Your task to perform on an android device: turn on javascript in the chrome app Image 0: 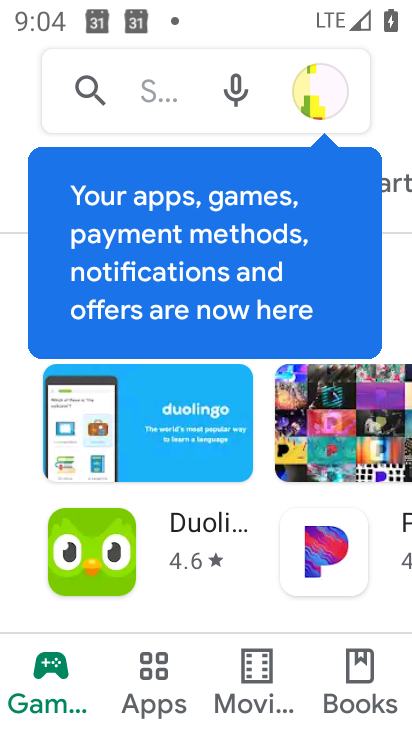
Step 0: press home button
Your task to perform on an android device: turn on javascript in the chrome app Image 1: 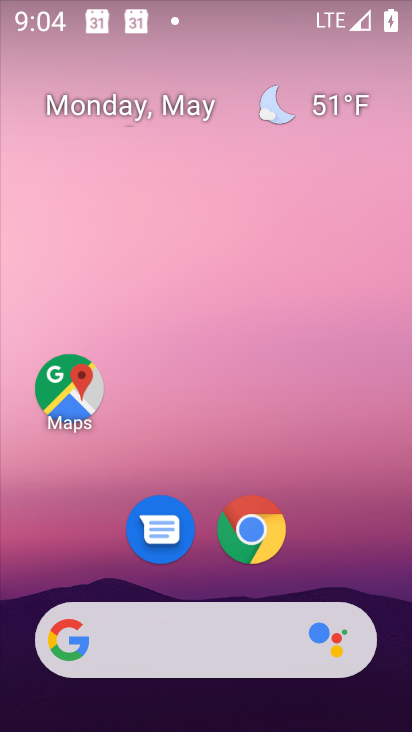
Step 1: click (246, 552)
Your task to perform on an android device: turn on javascript in the chrome app Image 2: 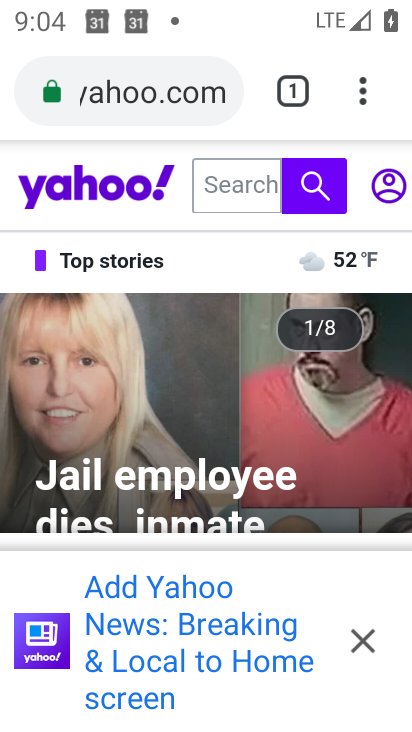
Step 2: click (359, 86)
Your task to perform on an android device: turn on javascript in the chrome app Image 3: 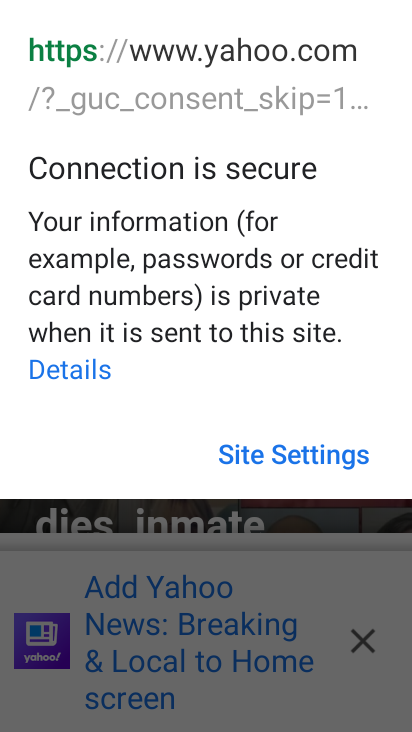
Step 3: press back button
Your task to perform on an android device: turn on javascript in the chrome app Image 4: 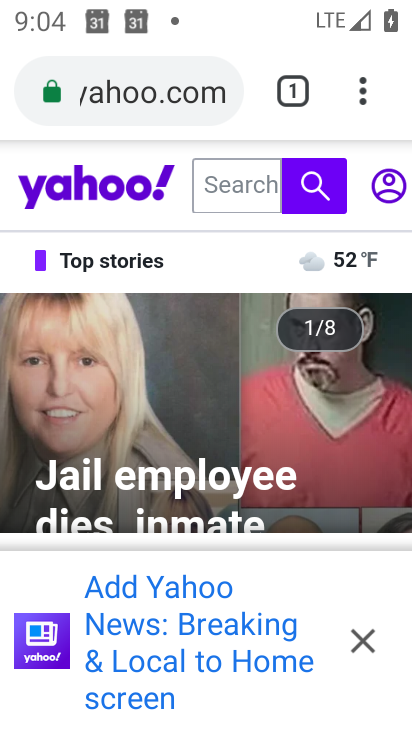
Step 4: click (358, 94)
Your task to perform on an android device: turn on javascript in the chrome app Image 5: 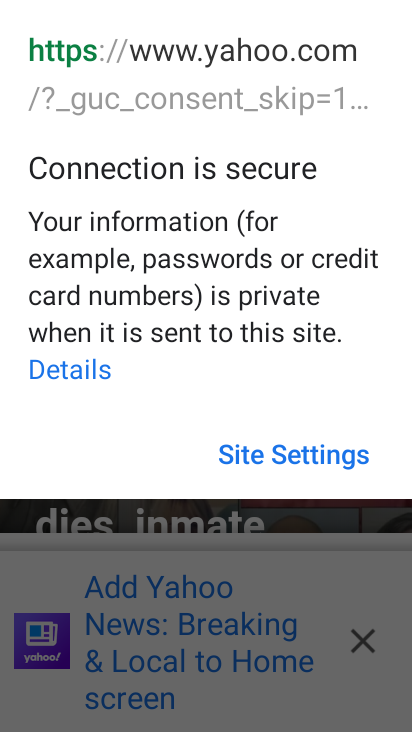
Step 5: press back button
Your task to perform on an android device: turn on javascript in the chrome app Image 6: 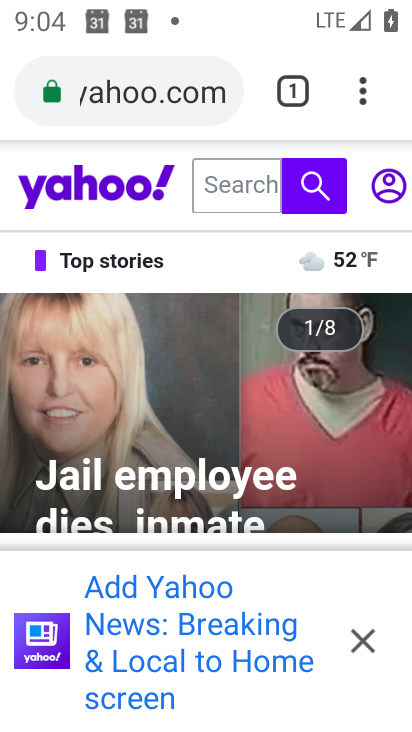
Step 6: click (357, 92)
Your task to perform on an android device: turn on javascript in the chrome app Image 7: 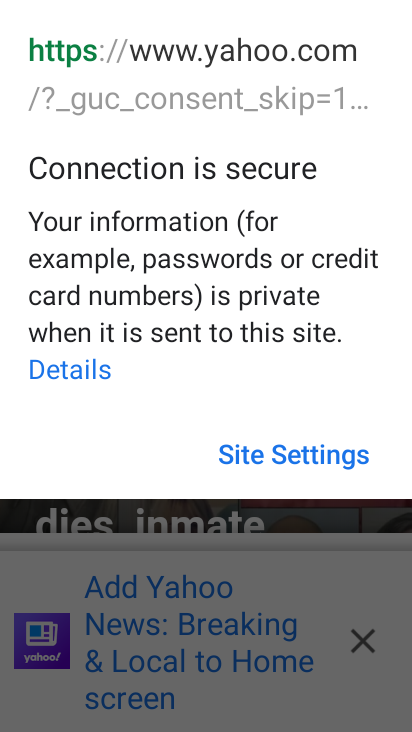
Step 7: press back button
Your task to perform on an android device: turn on javascript in the chrome app Image 8: 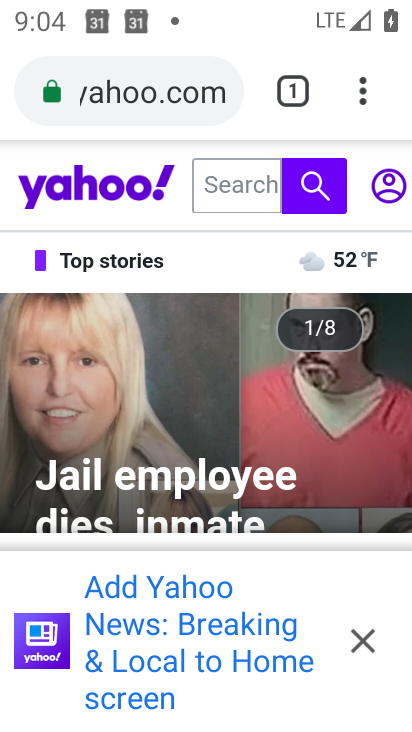
Step 8: click (364, 85)
Your task to perform on an android device: turn on javascript in the chrome app Image 9: 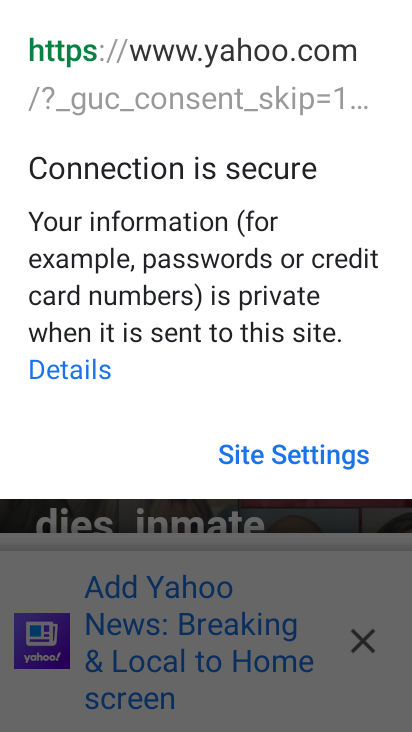
Step 9: press back button
Your task to perform on an android device: turn on javascript in the chrome app Image 10: 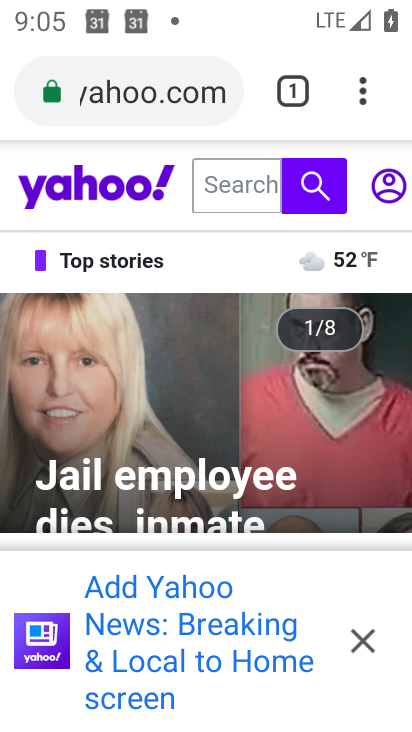
Step 10: click (364, 93)
Your task to perform on an android device: turn on javascript in the chrome app Image 11: 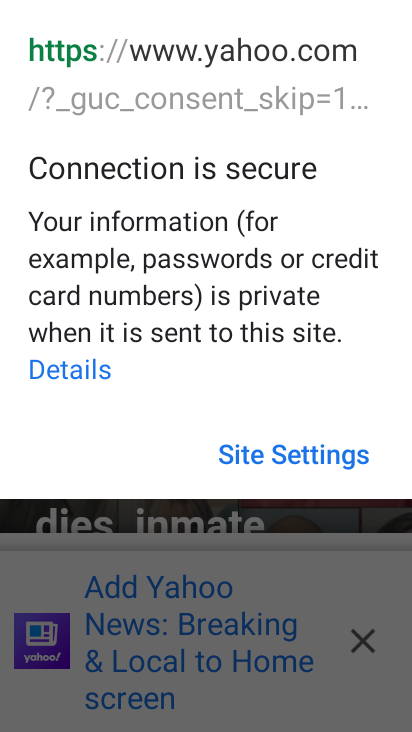
Step 11: press back button
Your task to perform on an android device: turn on javascript in the chrome app Image 12: 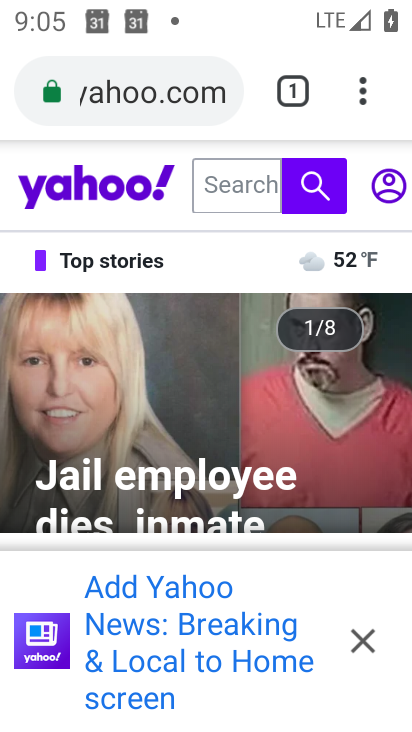
Step 12: click (358, 647)
Your task to perform on an android device: turn on javascript in the chrome app Image 13: 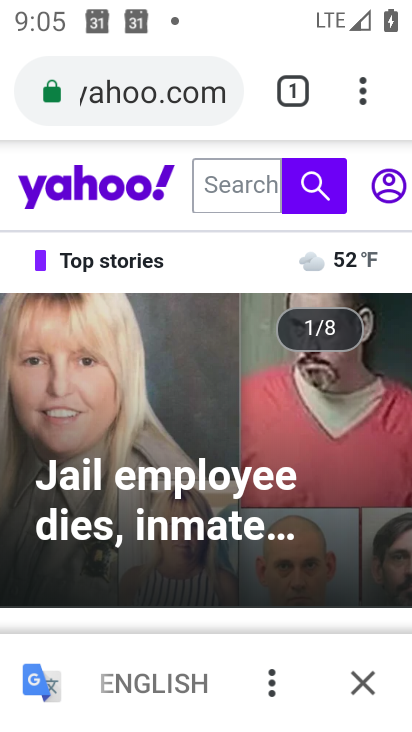
Step 13: click (356, 92)
Your task to perform on an android device: turn on javascript in the chrome app Image 14: 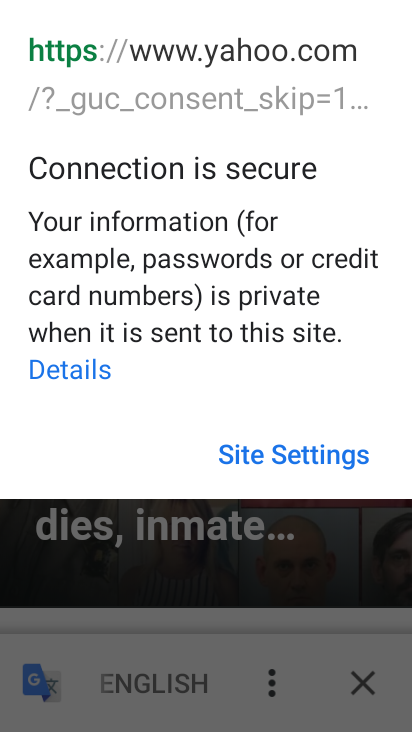
Step 14: press back button
Your task to perform on an android device: turn on javascript in the chrome app Image 15: 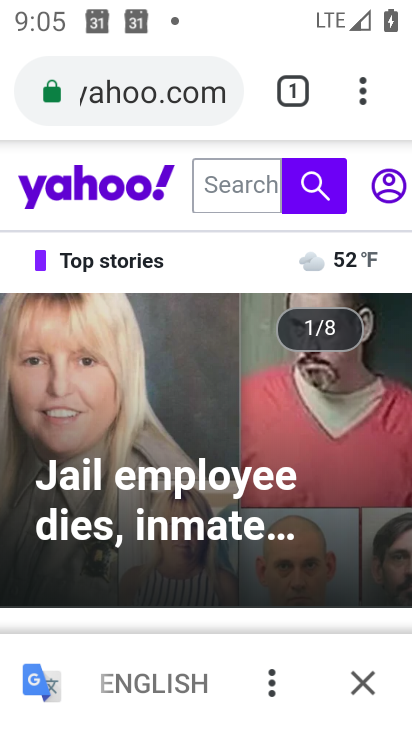
Step 15: click (362, 93)
Your task to perform on an android device: turn on javascript in the chrome app Image 16: 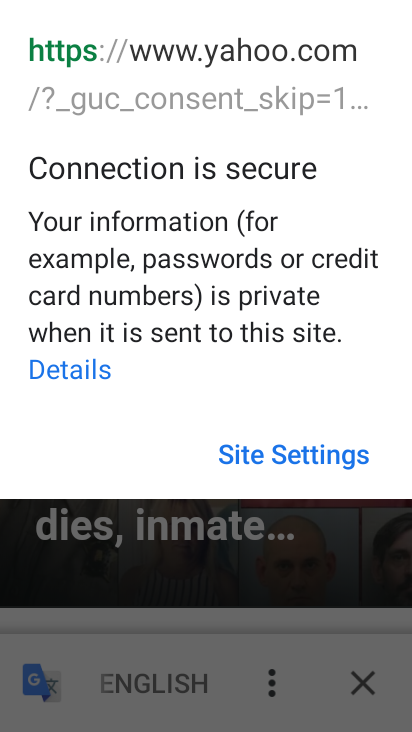
Step 16: press back button
Your task to perform on an android device: turn on javascript in the chrome app Image 17: 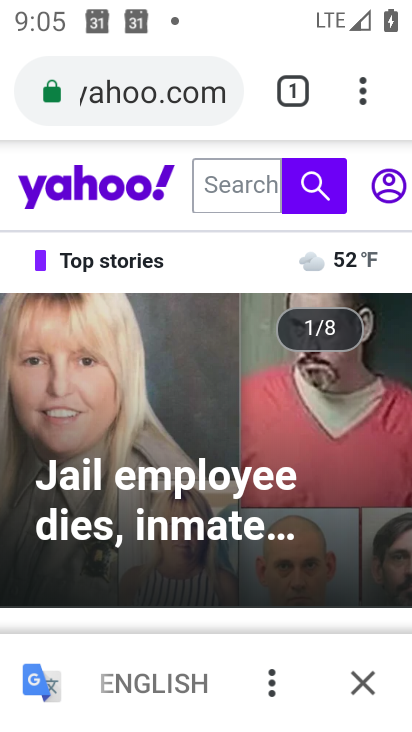
Step 17: click (357, 90)
Your task to perform on an android device: turn on javascript in the chrome app Image 18: 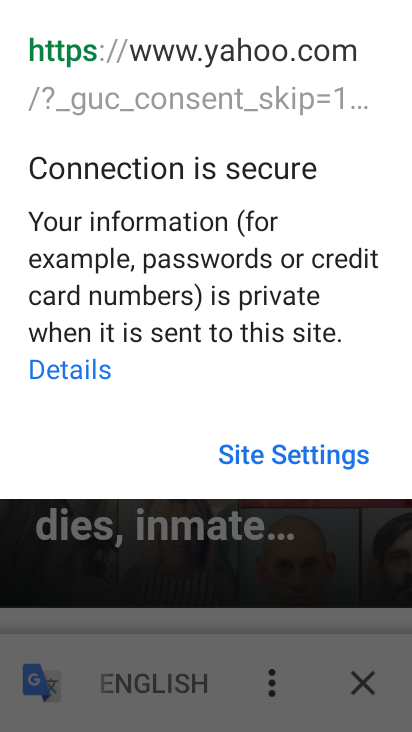
Step 18: press back button
Your task to perform on an android device: turn on javascript in the chrome app Image 19: 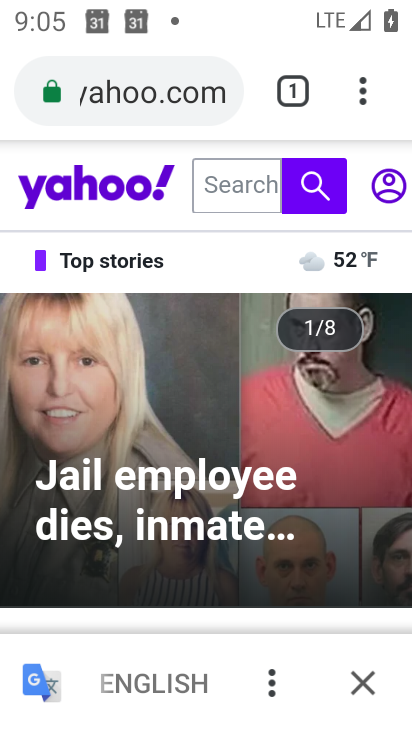
Step 19: click (360, 91)
Your task to perform on an android device: turn on javascript in the chrome app Image 20: 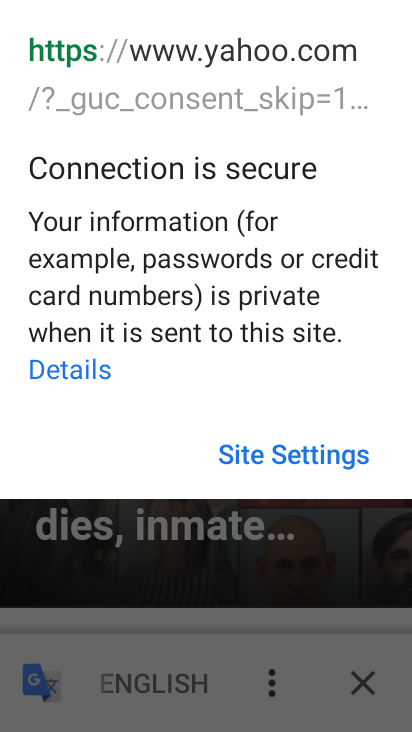
Step 20: press back button
Your task to perform on an android device: turn on javascript in the chrome app Image 21: 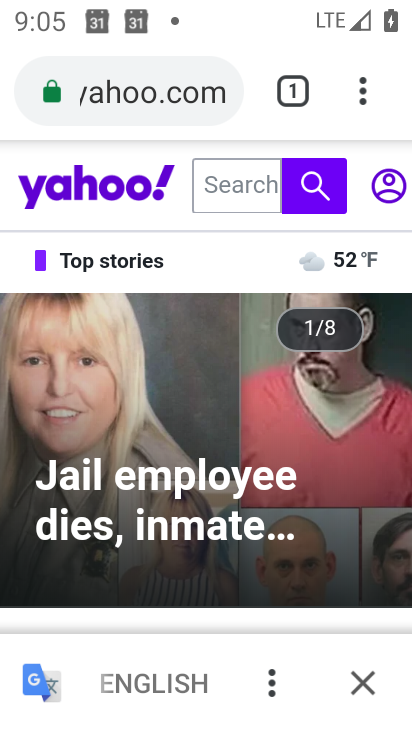
Step 21: click (360, 106)
Your task to perform on an android device: turn on javascript in the chrome app Image 22: 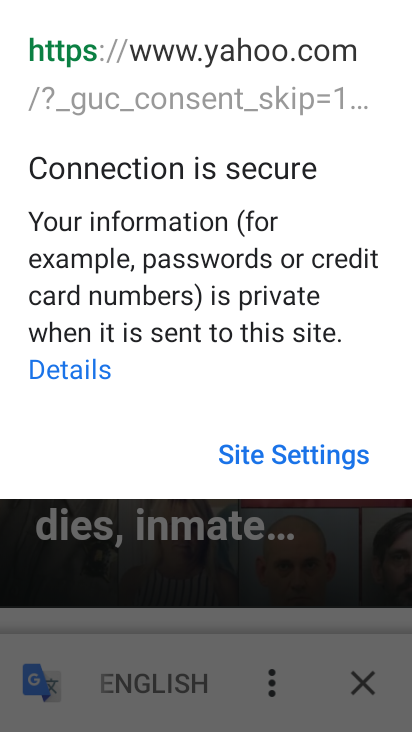
Step 22: press back button
Your task to perform on an android device: turn on javascript in the chrome app Image 23: 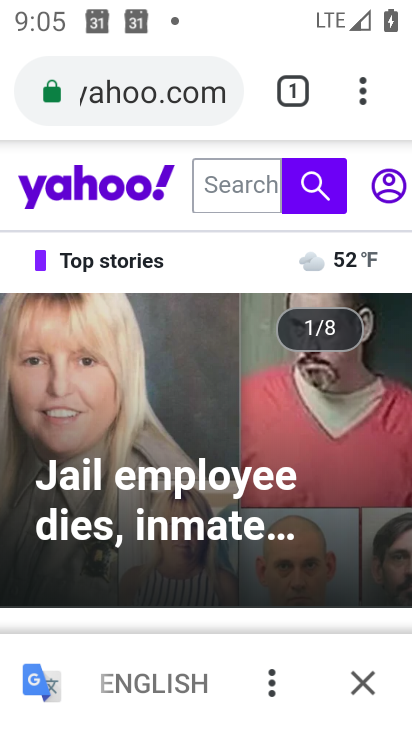
Step 23: click (355, 94)
Your task to perform on an android device: turn on javascript in the chrome app Image 24: 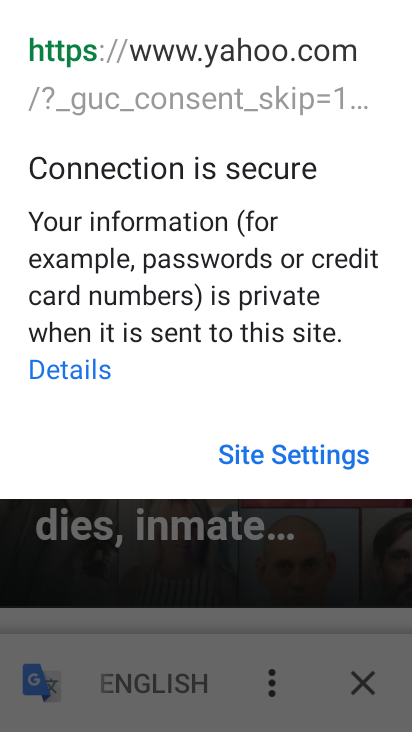
Step 24: press back button
Your task to perform on an android device: turn on javascript in the chrome app Image 25: 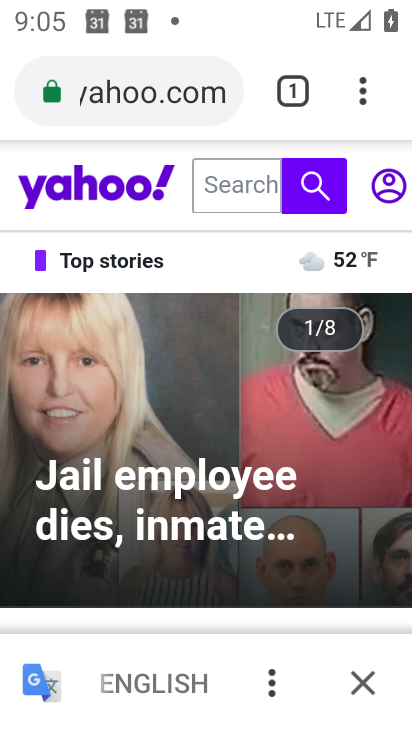
Step 25: click (364, 78)
Your task to perform on an android device: turn on javascript in the chrome app Image 26: 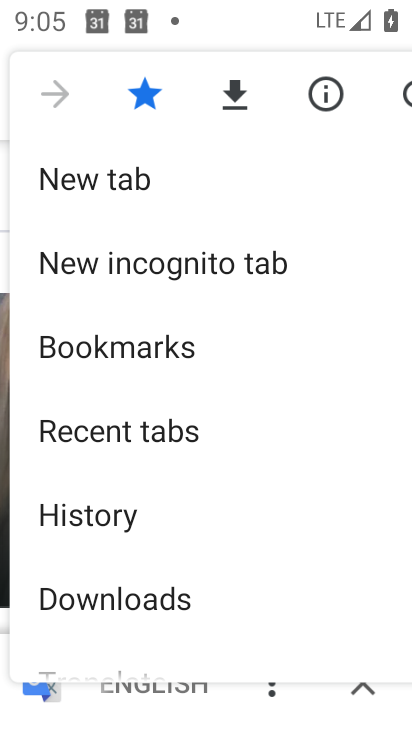
Step 26: drag from (50, 657) to (199, 193)
Your task to perform on an android device: turn on javascript in the chrome app Image 27: 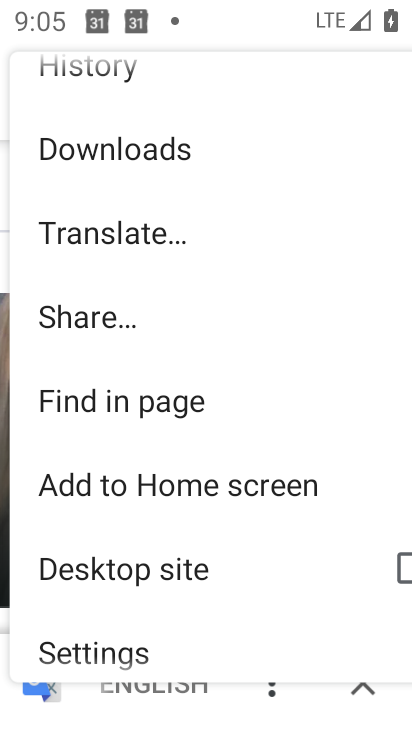
Step 27: click (125, 651)
Your task to perform on an android device: turn on javascript in the chrome app Image 28: 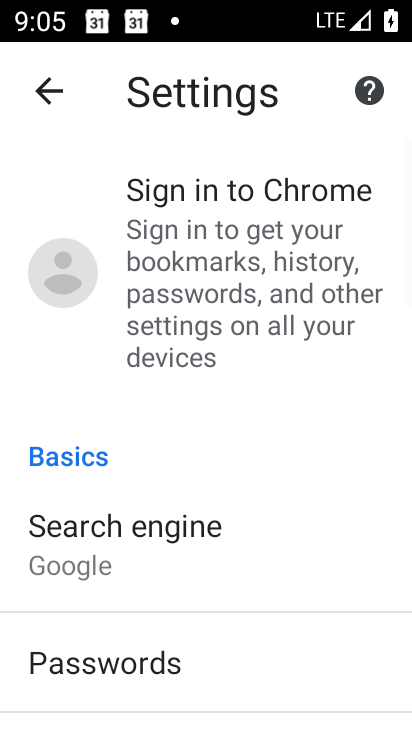
Step 28: drag from (106, 608) to (230, 242)
Your task to perform on an android device: turn on javascript in the chrome app Image 29: 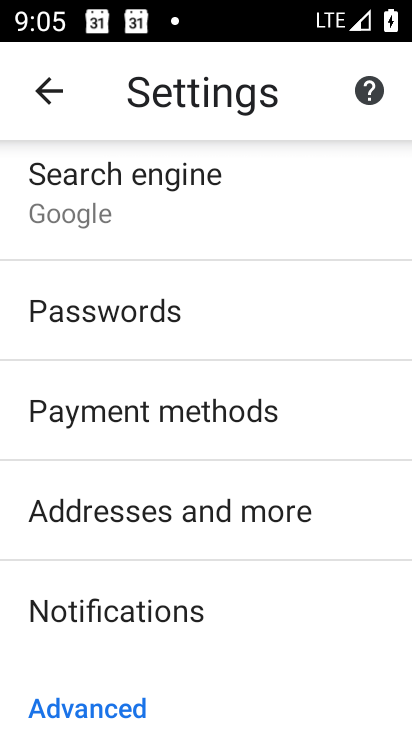
Step 29: drag from (100, 667) to (197, 306)
Your task to perform on an android device: turn on javascript in the chrome app Image 30: 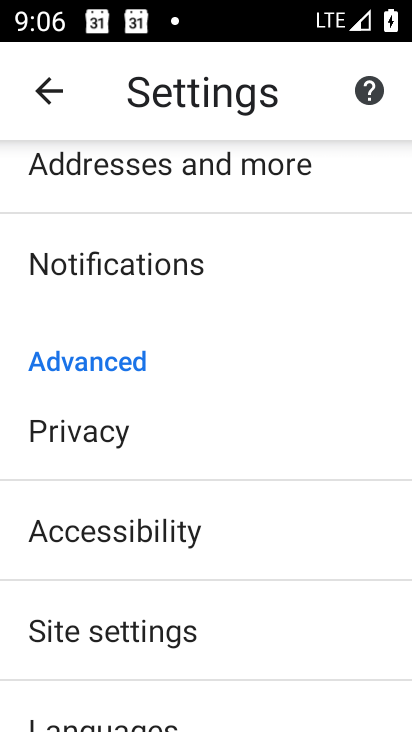
Step 30: click (110, 638)
Your task to perform on an android device: turn on javascript in the chrome app Image 31: 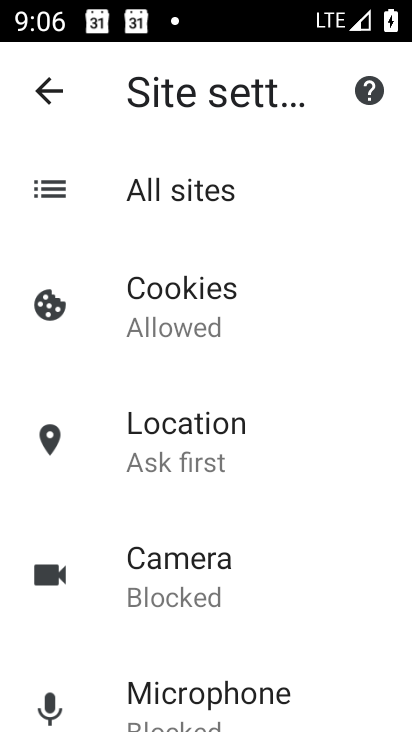
Step 31: drag from (216, 664) to (350, 211)
Your task to perform on an android device: turn on javascript in the chrome app Image 32: 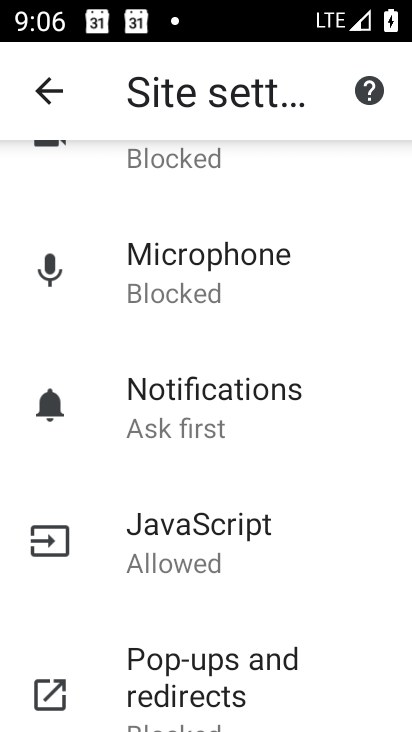
Step 32: click (187, 535)
Your task to perform on an android device: turn on javascript in the chrome app Image 33: 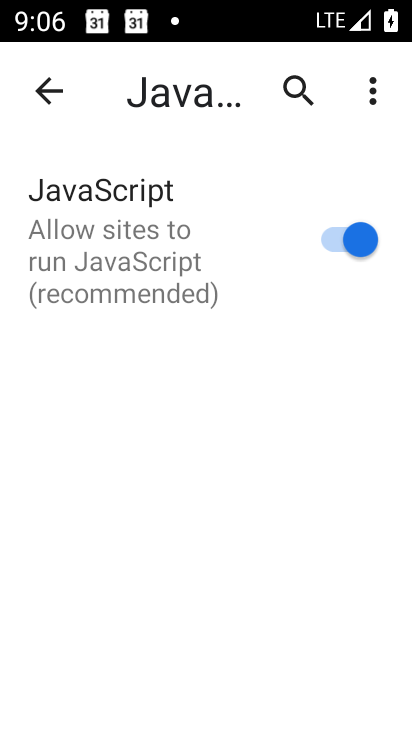
Step 33: task complete